Your task to perform on an android device: Go to Amazon Image 0: 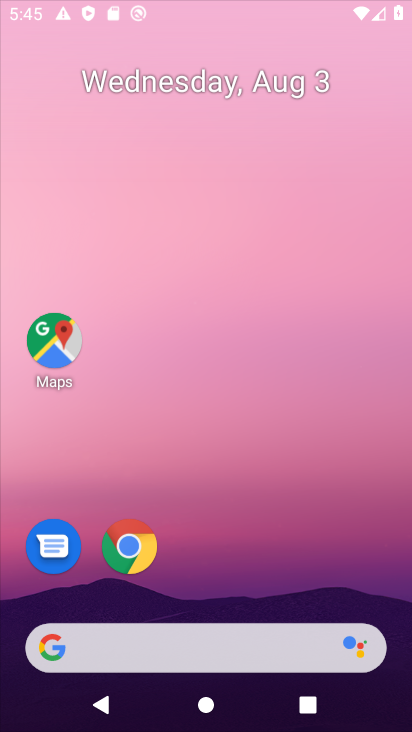
Step 0: press home button
Your task to perform on an android device: Go to Amazon Image 1: 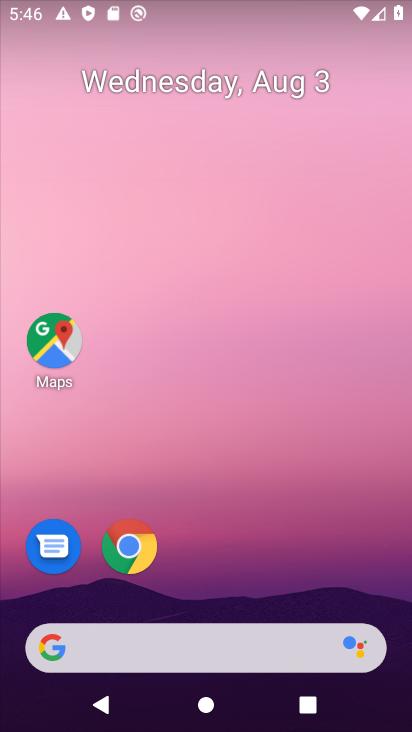
Step 1: click (46, 668)
Your task to perform on an android device: Go to Amazon Image 2: 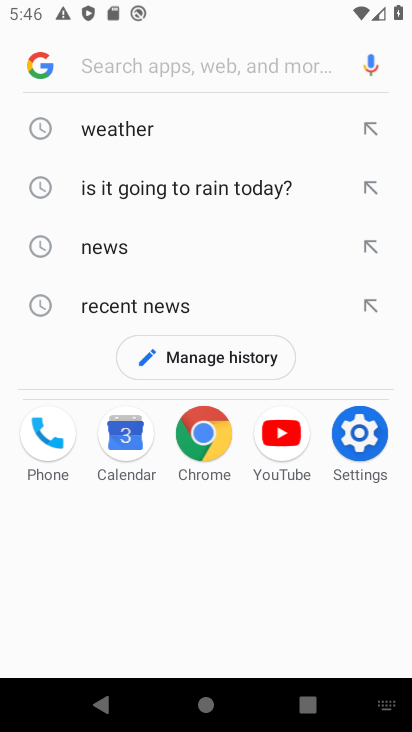
Step 2: type "Amazon"
Your task to perform on an android device: Go to Amazon Image 3: 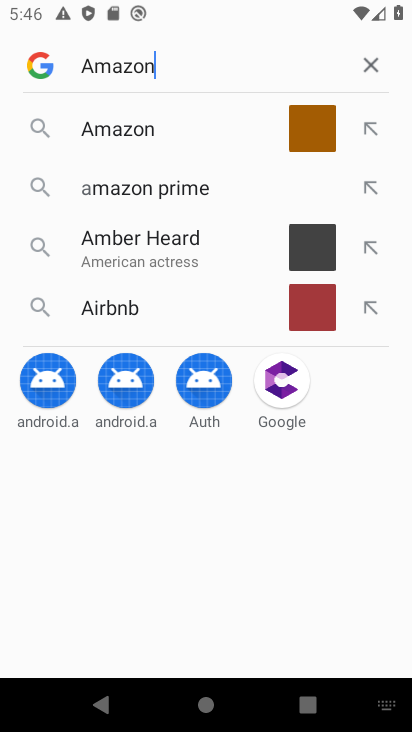
Step 3: press enter
Your task to perform on an android device: Go to Amazon Image 4: 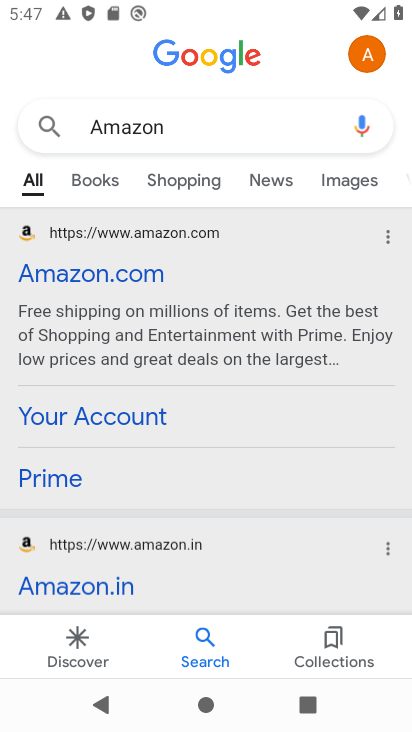
Step 4: click (66, 262)
Your task to perform on an android device: Go to Amazon Image 5: 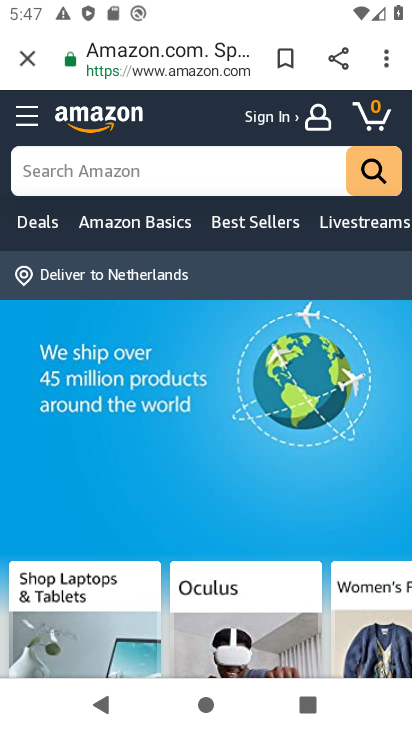
Step 5: task complete